Your task to perform on an android device: set an alarm Image 0: 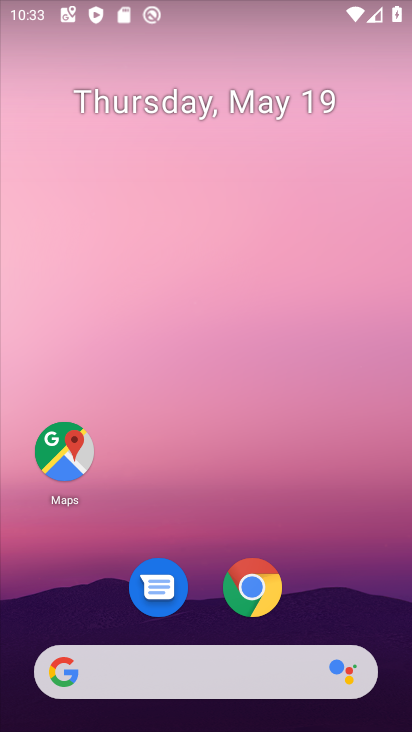
Step 0: drag from (371, 603) to (323, 120)
Your task to perform on an android device: set an alarm Image 1: 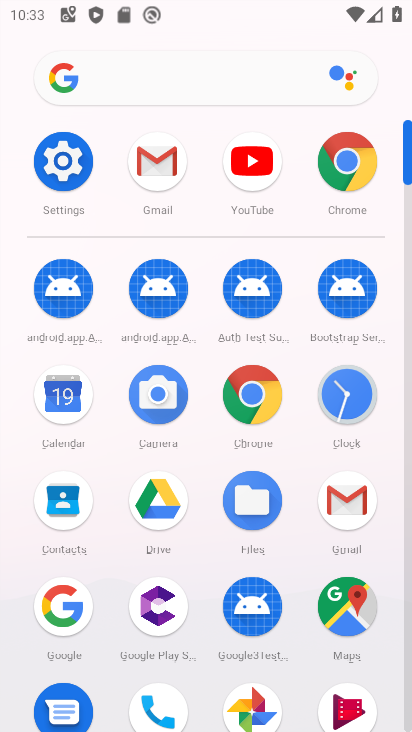
Step 1: click (342, 392)
Your task to perform on an android device: set an alarm Image 2: 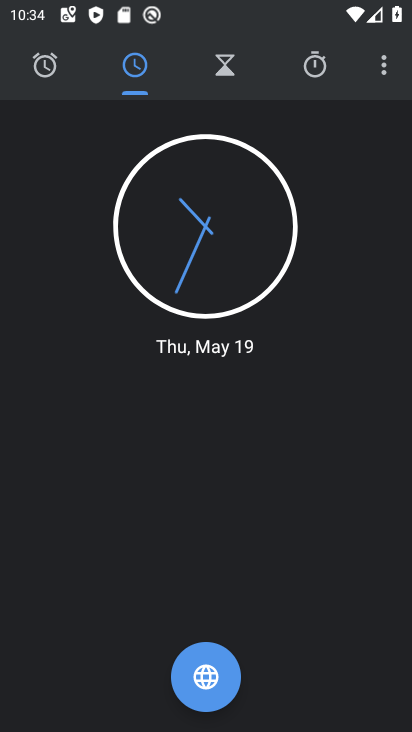
Step 2: click (49, 77)
Your task to perform on an android device: set an alarm Image 3: 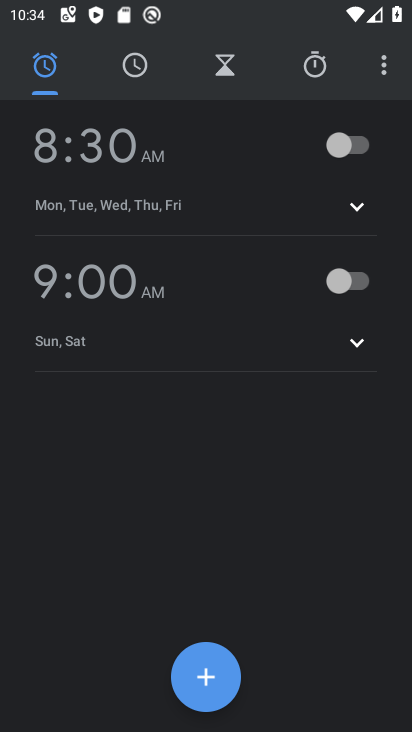
Step 3: click (223, 685)
Your task to perform on an android device: set an alarm Image 4: 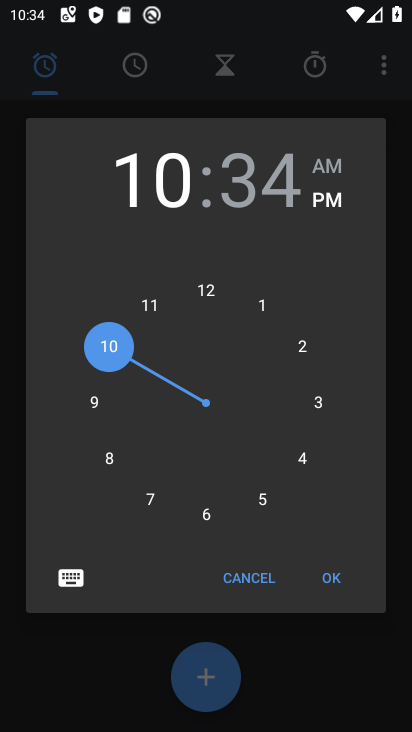
Step 4: click (327, 587)
Your task to perform on an android device: set an alarm Image 5: 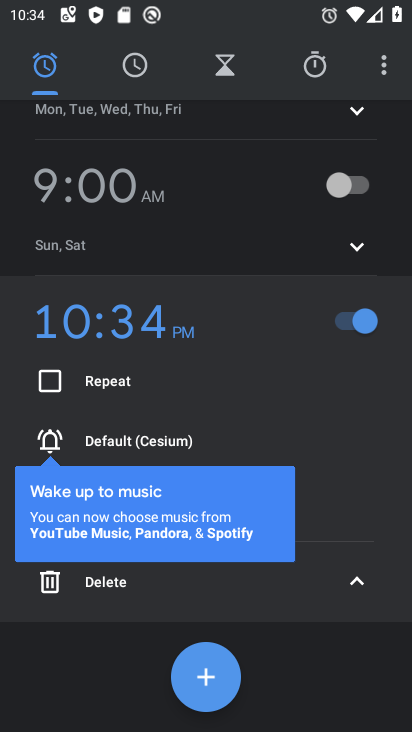
Step 5: task complete